Your task to perform on an android device: change alarm snooze length Image 0: 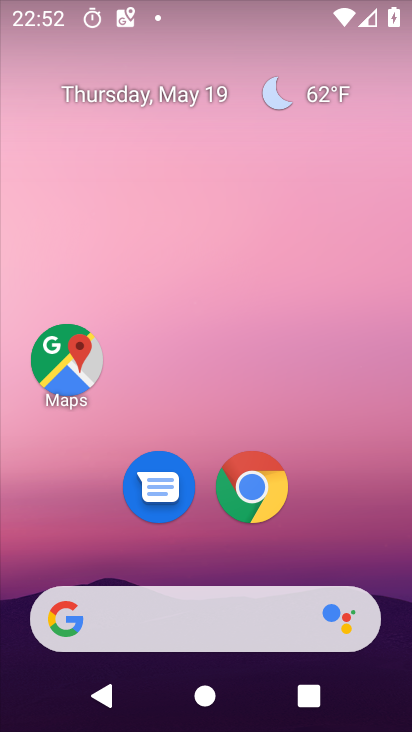
Step 0: drag from (341, 541) to (321, 131)
Your task to perform on an android device: change alarm snooze length Image 1: 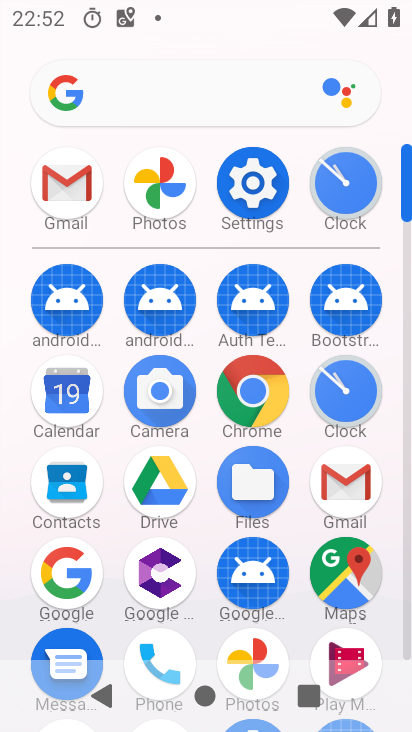
Step 1: click (259, 176)
Your task to perform on an android device: change alarm snooze length Image 2: 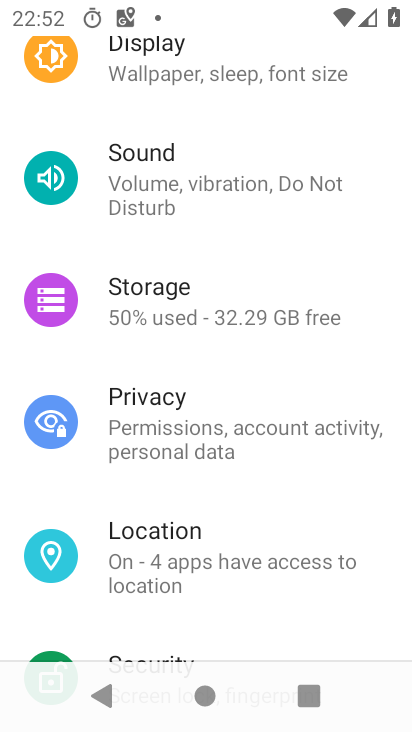
Step 2: press home button
Your task to perform on an android device: change alarm snooze length Image 3: 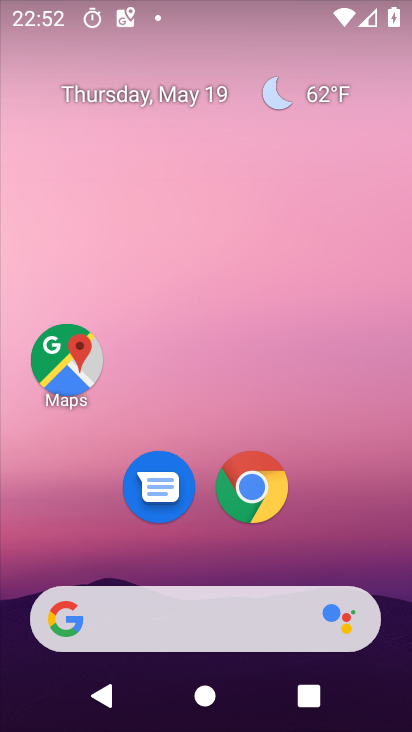
Step 3: drag from (349, 559) to (317, 78)
Your task to perform on an android device: change alarm snooze length Image 4: 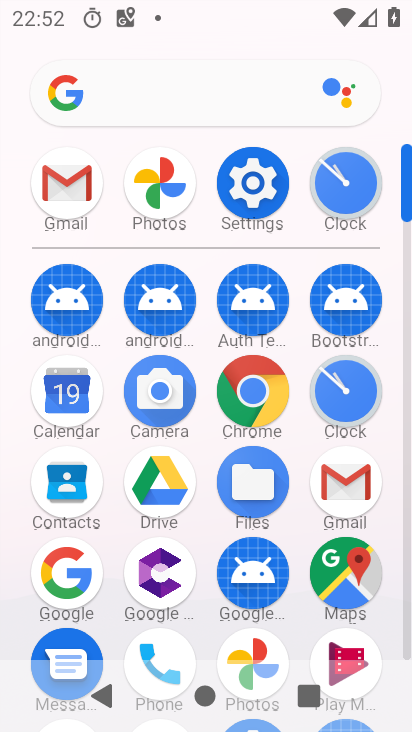
Step 4: click (345, 191)
Your task to perform on an android device: change alarm snooze length Image 5: 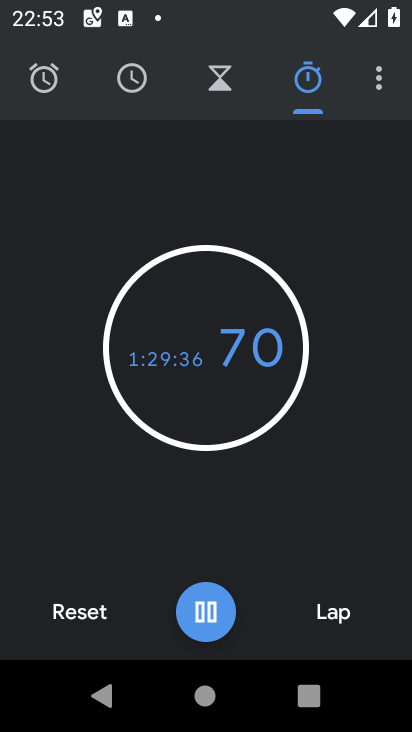
Step 5: click (383, 86)
Your task to perform on an android device: change alarm snooze length Image 6: 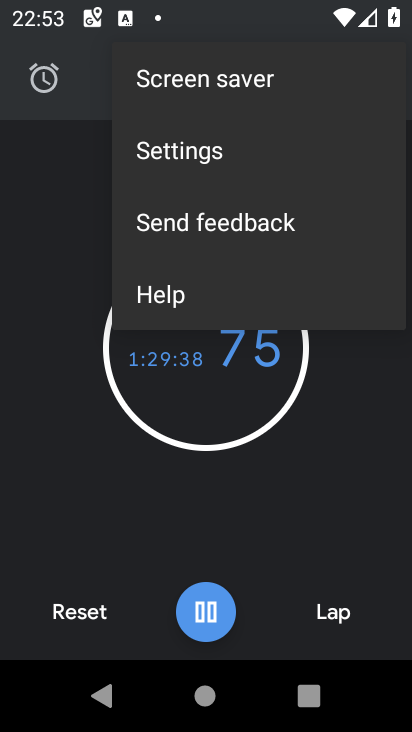
Step 6: click (228, 160)
Your task to perform on an android device: change alarm snooze length Image 7: 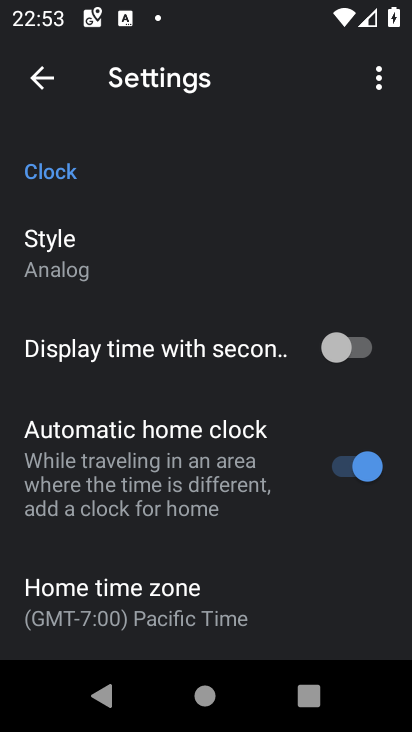
Step 7: drag from (280, 572) to (268, 328)
Your task to perform on an android device: change alarm snooze length Image 8: 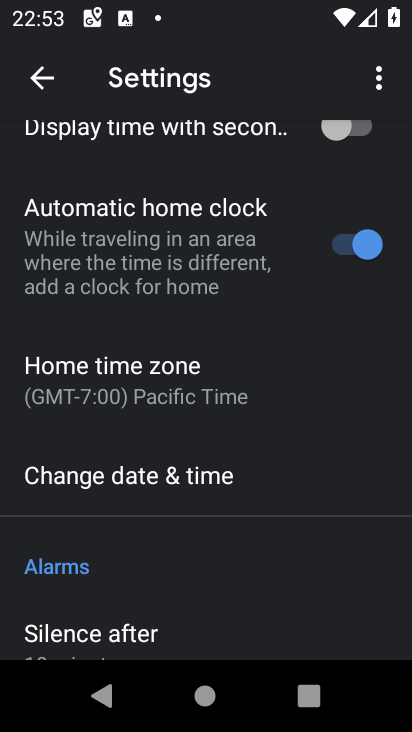
Step 8: drag from (257, 605) to (264, 314)
Your task to perform on an android device: change alarm snooze length Image 9: 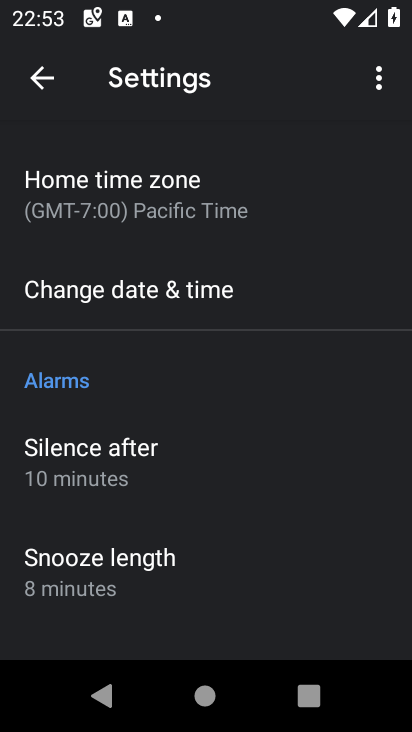
Step 9: click (163, 574)
Your task to perform on an android device: change alarm snooze length Image 10: 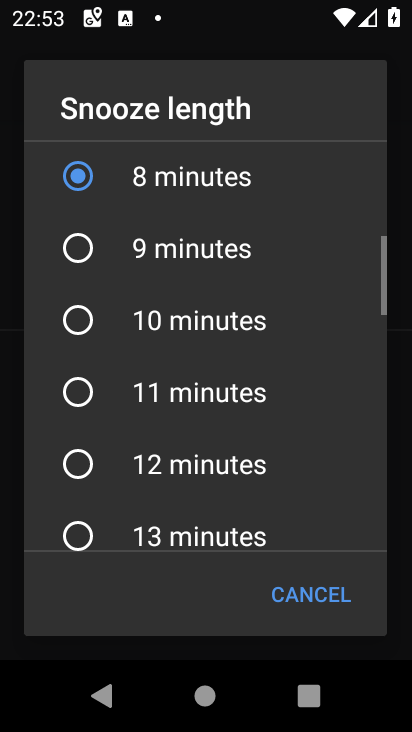
Step 10: drag from (251, 226) to (268, 486)
Your task to perform on an android device: change alarm snooze length Image 11: 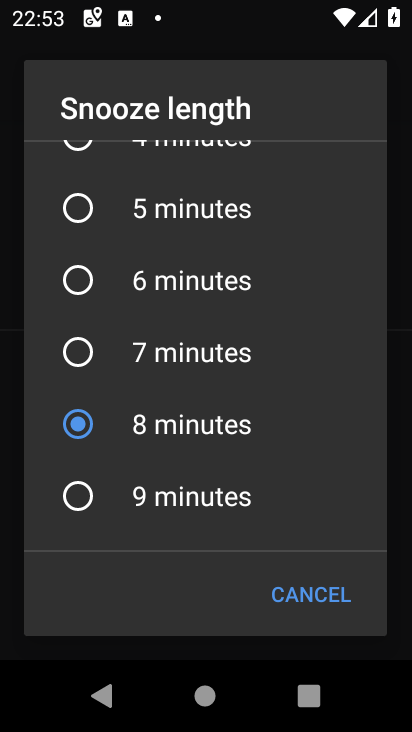
Step 11: click (78, 209)
Your task to perform on an android device: change alarm snooze length Image 12: 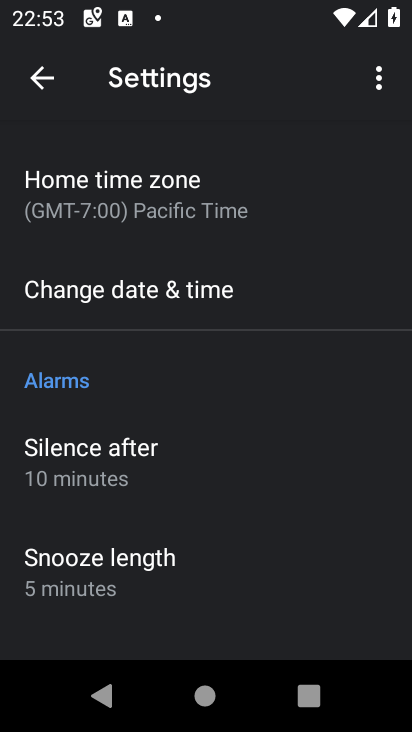
Step 12: task complete